Your task to perform on an android device: check battery use Image 0: 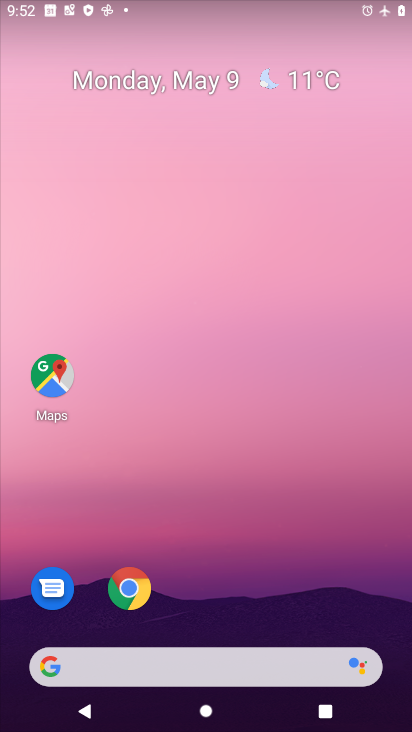
Step 0: drag from (337, 617) to (265, 43)
Your task to perform on an android device: check battery use Image 1: 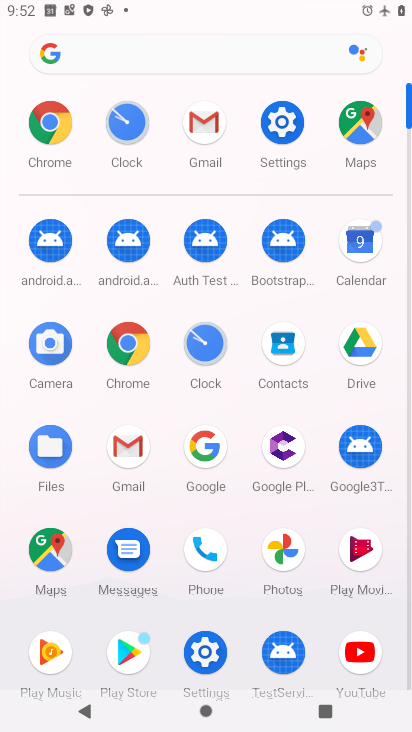
Step 1: click (214, 664)
Your task to perform on an android device: check battery use Image 2: 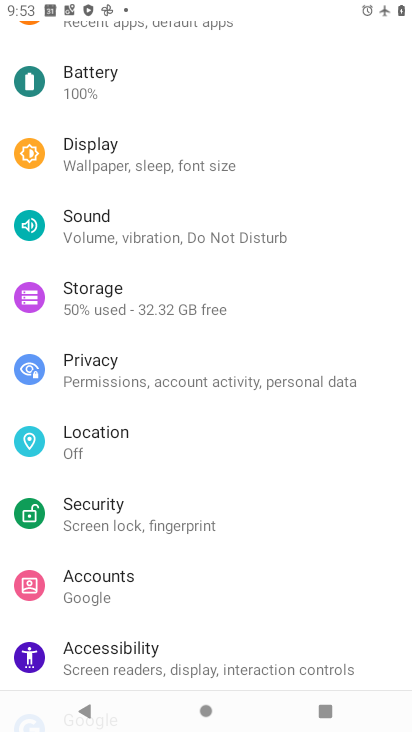
Step 2: click (130, 99)
Your task to perform on an android device: check battery use Image 3: 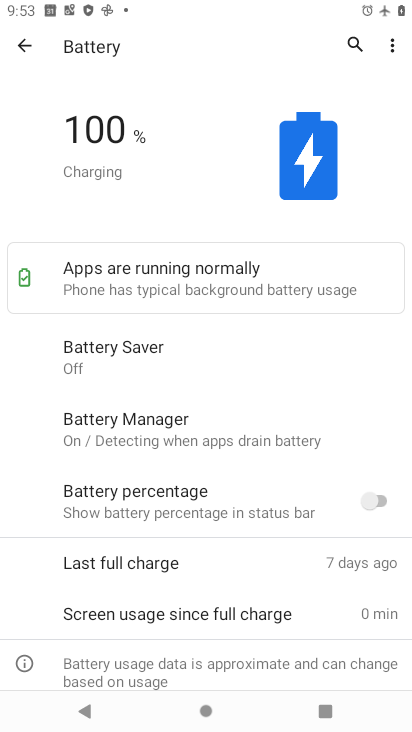
Step 3: task complete